Your task to perform on an android device: Open the stopwatch Image 0: 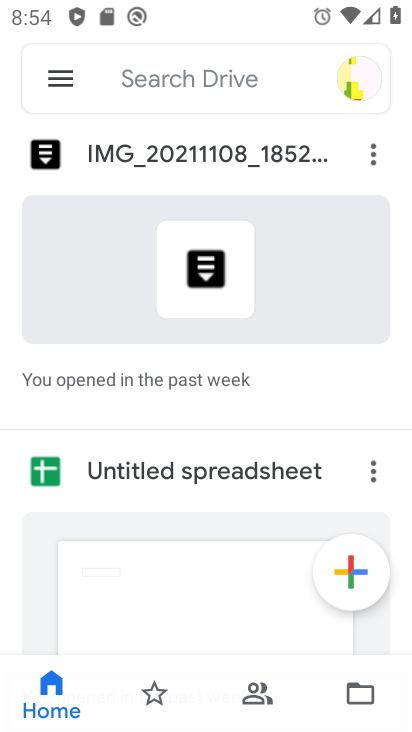
Step 0: press home button
Your task to perform on an android device: Open the stopwatch Image 1: 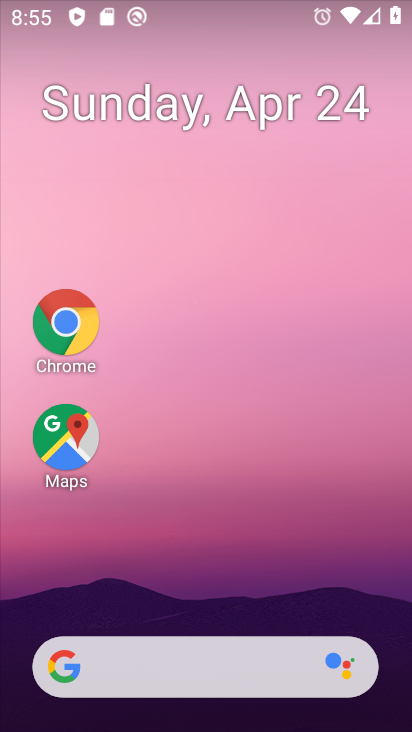
Step 1: drag from (231, 565) to (293, 3)
Your task to perform on an android device: Open the stopwatch Image 2: 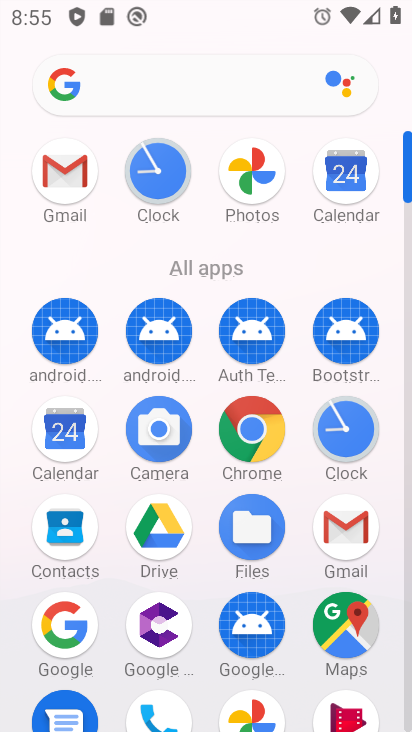
Step 2: click (347, 439)
Your task to perform on an android device: Open the stopwatch Image 3: 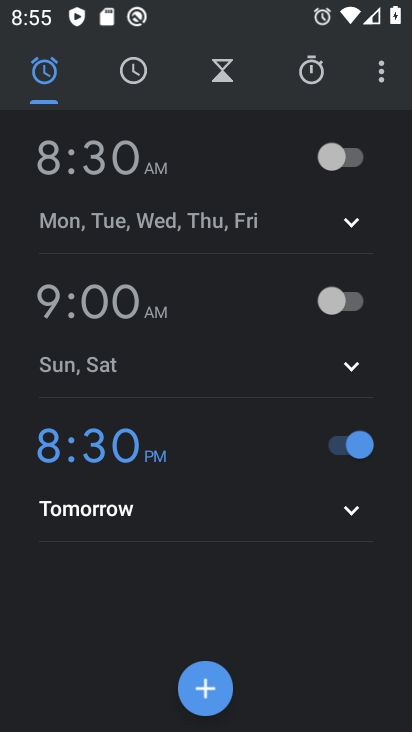
Step 3: click (310, 70)
Your task to perform on an android device: Open the stopwatch Image 4: 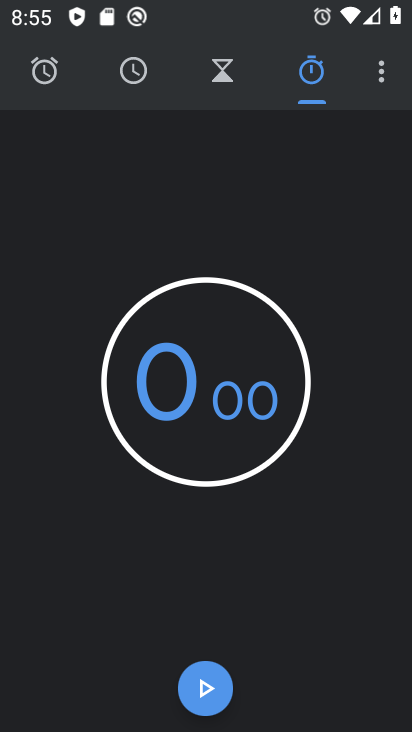
Step 4: task complete